Your task to perform on an android device: What's on my calendar today? Image 0: 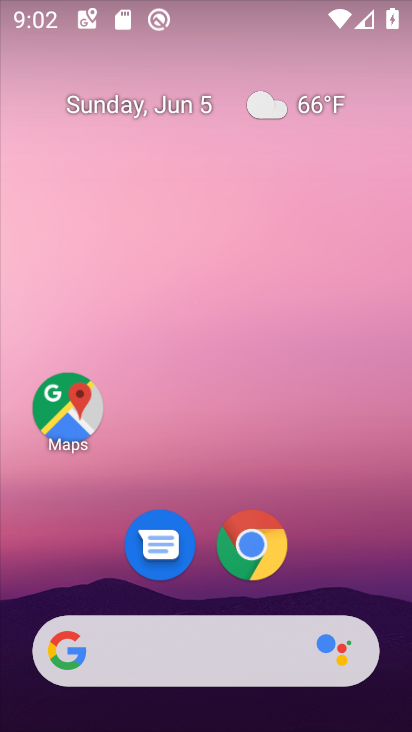
Step 0: drag from (381, 581) to (360, 185)
Your task to perform on an android device: What's on my calendar today? Image 1: 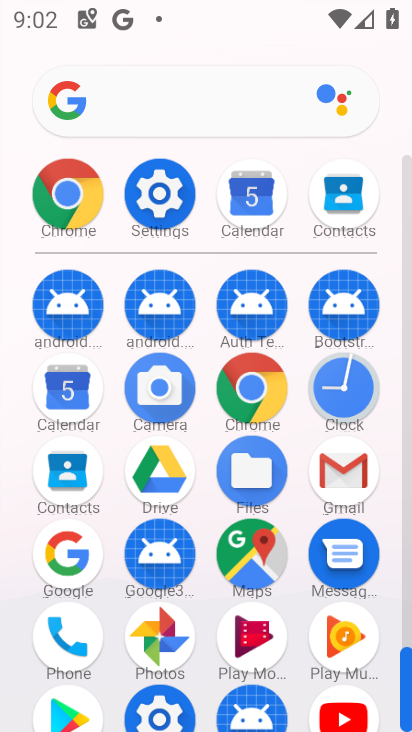
Step 1: click (86, 402)
Your task to perform on an android device: What's on my calendar today? Image 2: 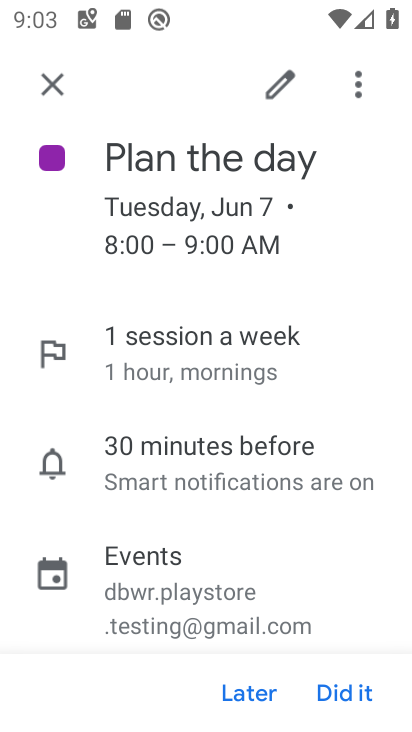
Step 2: click (45, 84)
Your task to perform on an android device: What's on my calendar today? Image 3: 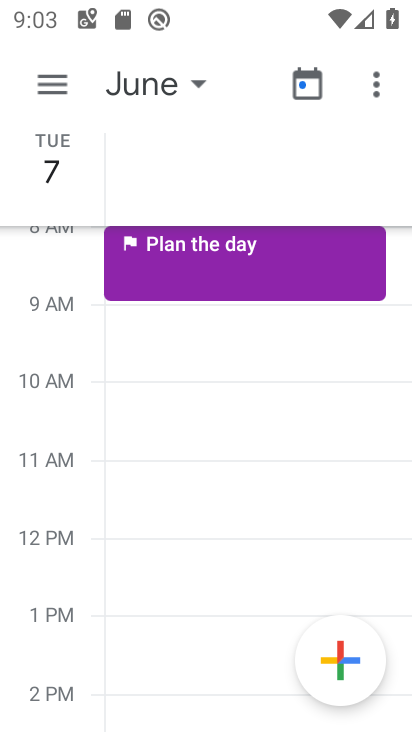
Step 3: drag from (210, 257) to (210, 431)
Your task to perform on an android device: What's on my calendar today? Image 4: 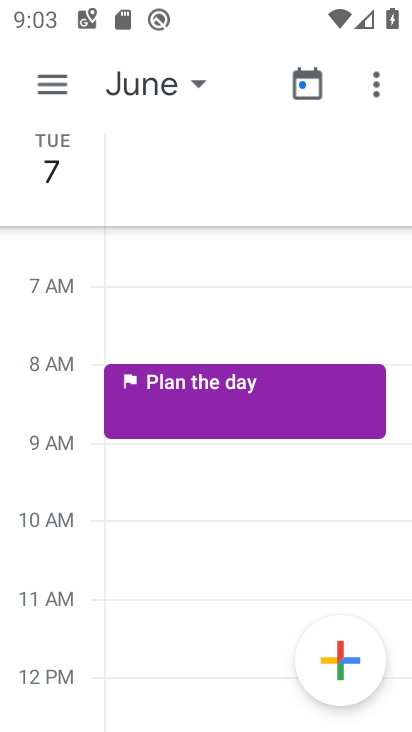
Step 4: drag from (193, 259) to (190, 412)
Your task to perform on an android device: What's on my calendar today? Image 5: 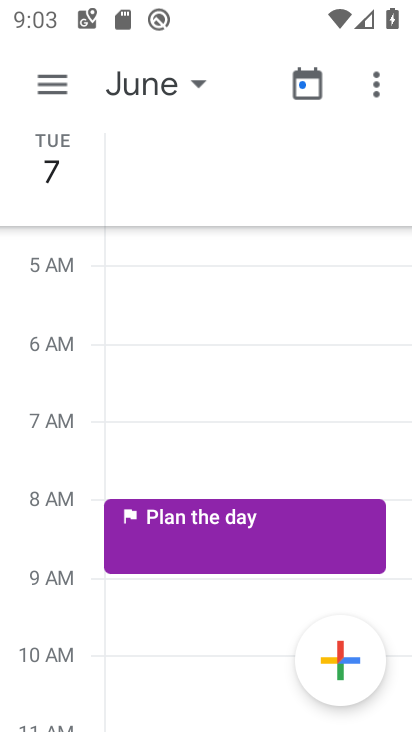
Step 5: click (197, 87)
Your task to perform on an android device: What's on my calendar today? Image 6: 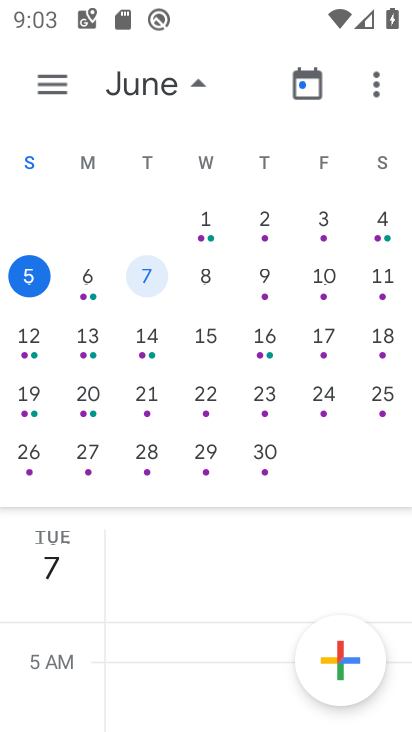
Step 6: click (81, 284)
Your task to perform on an android device: What's on my calendar today? Image 7: 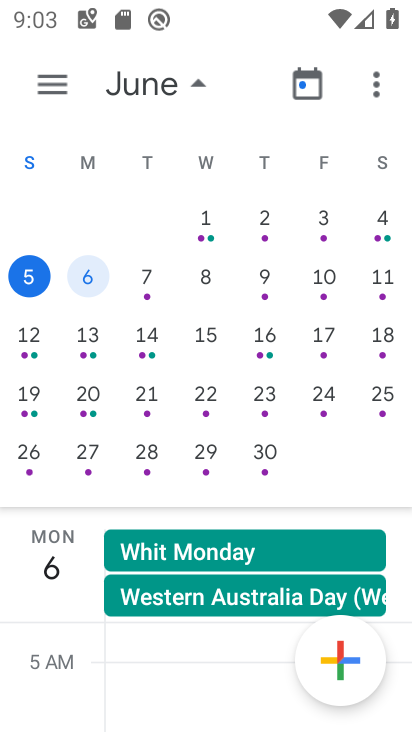
Step 7: task complete